Your task to perform on an android device: toggle notifications settings in the gmail app Image 0: 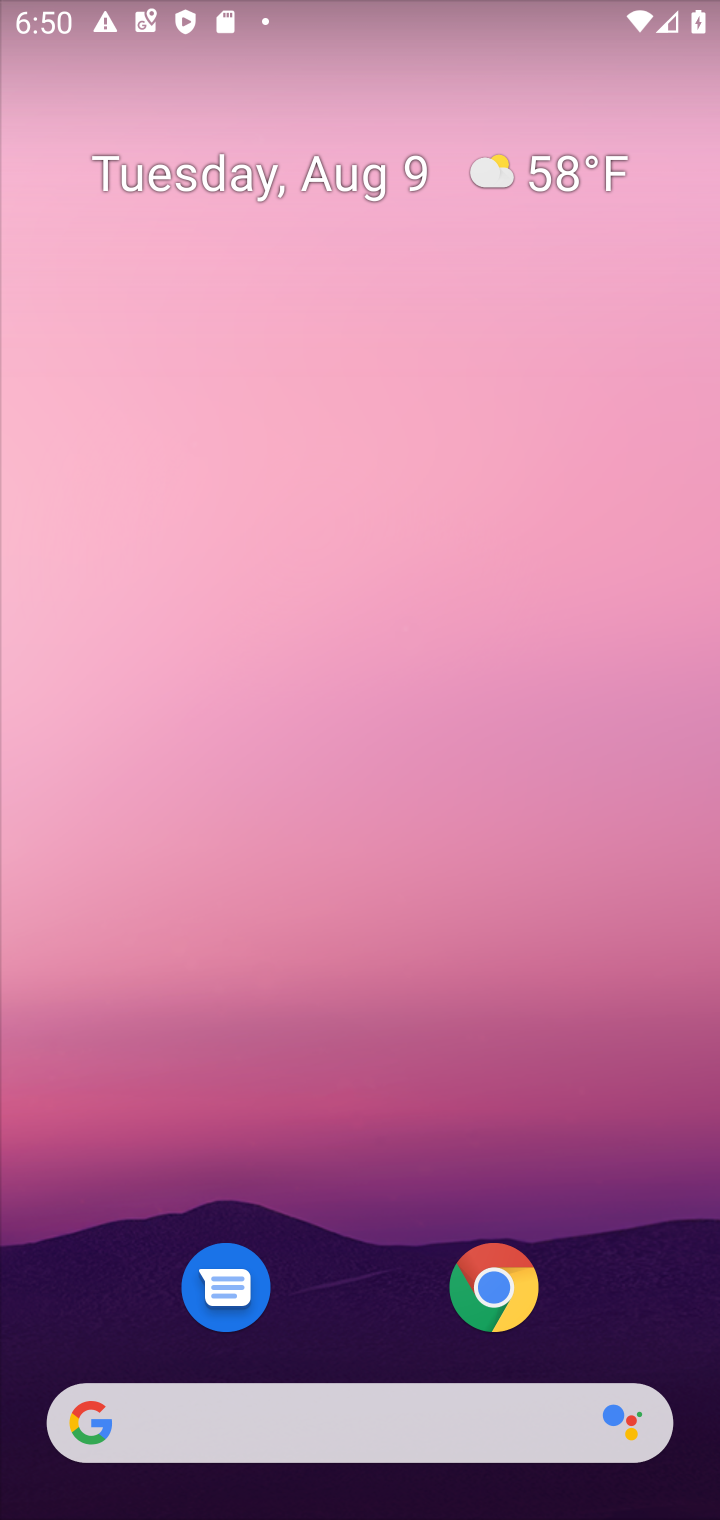
Step 0: drag from (414, 1200) to (531, 107)
Your task to perform on an android device: toggle notifications settings in the gmail app Image 1: 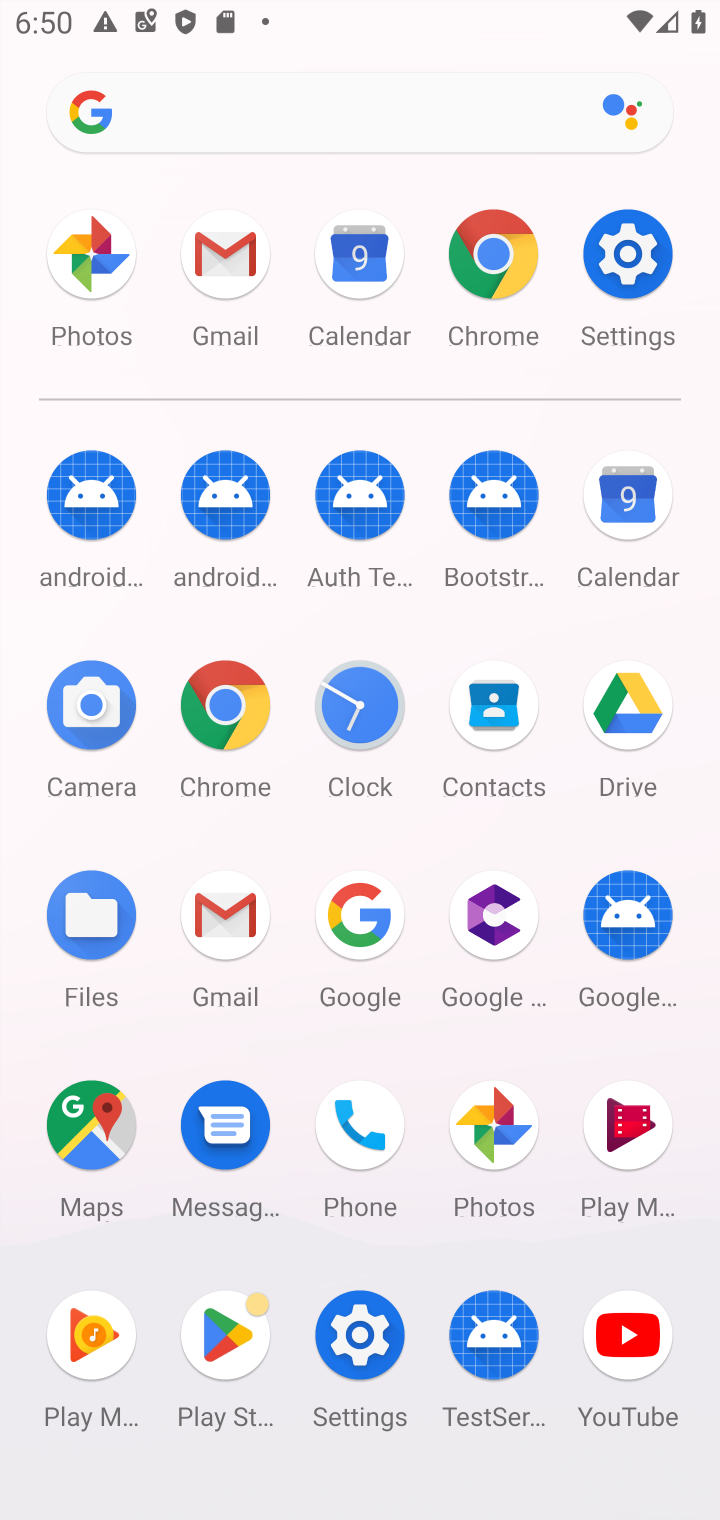
Step 1: click (212, 913)
Your task to perform on an android device: toggle notifications settings in the gmail app Image 2: 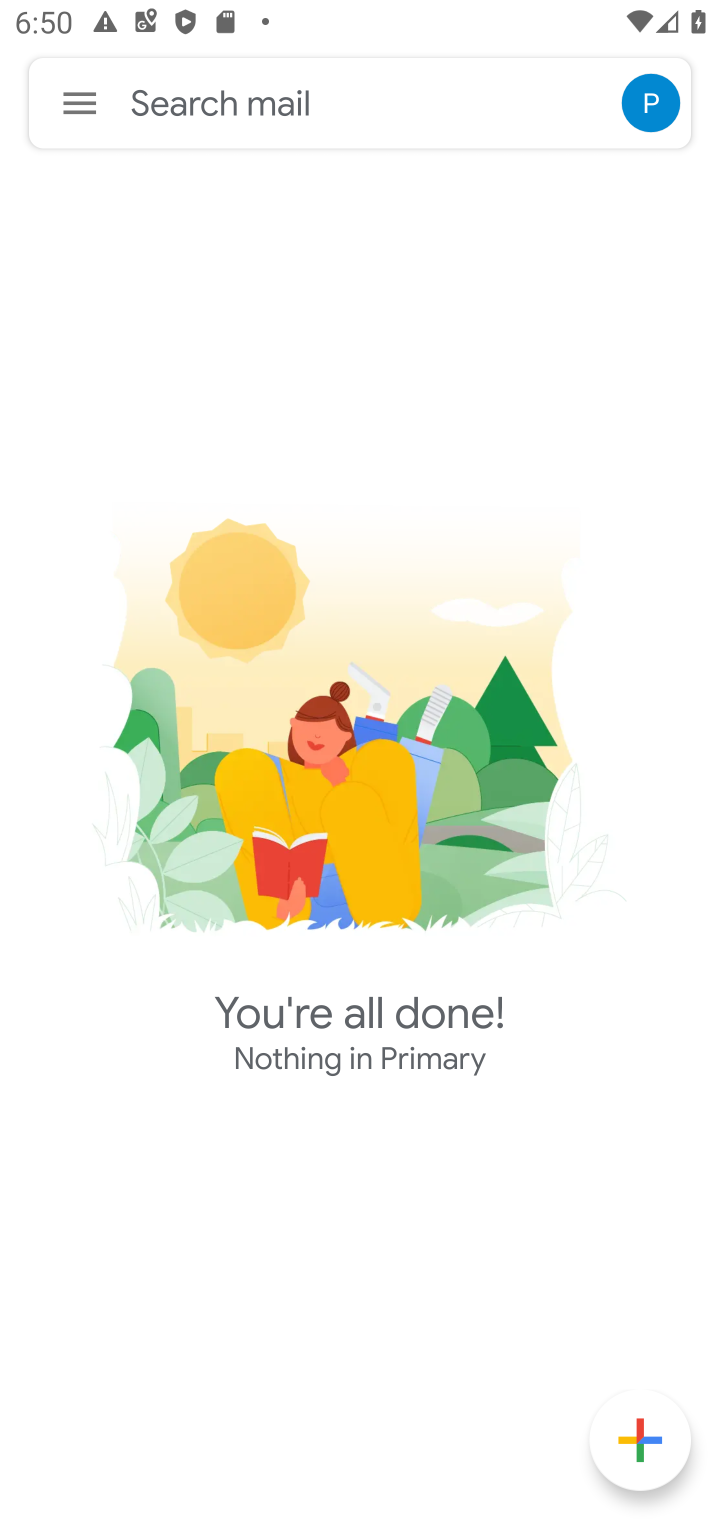
Step 2: task complete